Your task to perform on an android device: Open the map Image 0: 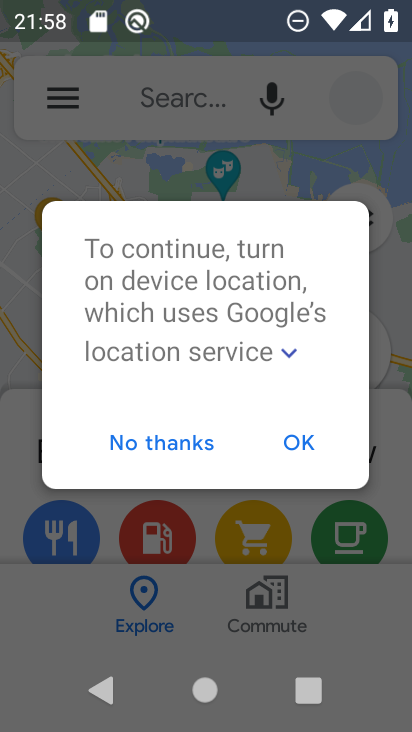
Step 0: press home button
Your task to perform on an android device: Open the map Image 1: 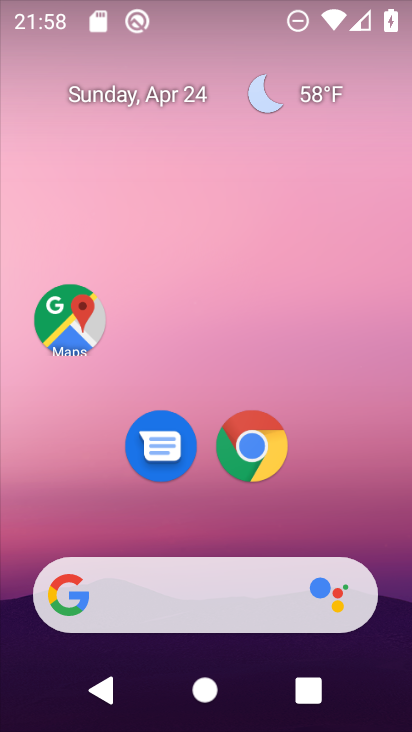
Step 1: click (76, 322)
Your task to perform on an android device: Open the map Image 2: 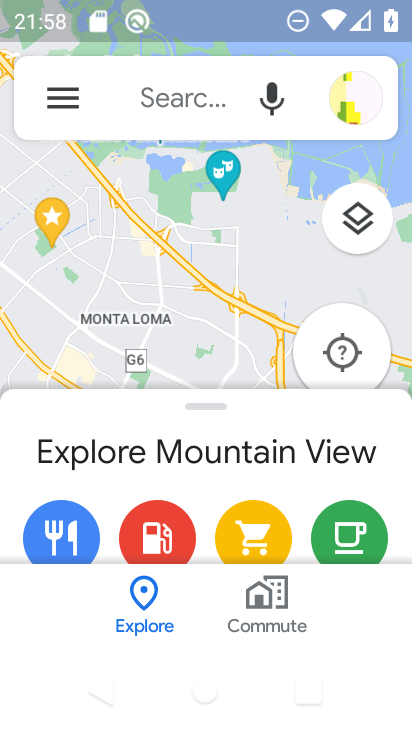
Step 2: task complete